Your task to perform on an android device: Go to sound settings Image 0: 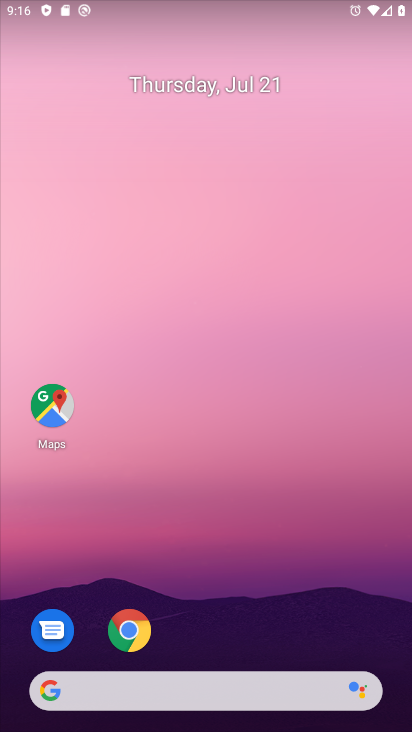
Step 0: drag from (232, 724) to (232, 592)
Your task to perform on an android device: Go to sound settings Image 1: 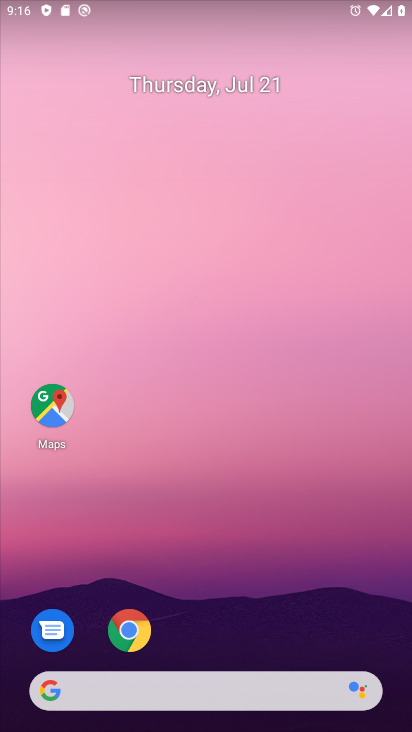
Step 1: drag from (198, 623) to (188, 139)
Your task to perform on an android device: Go to sound settings Image 2: 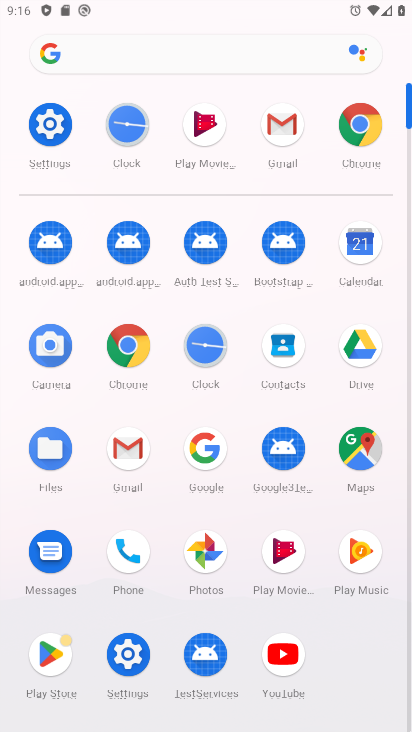
Step 2: click (59, 126)
Your task to perform on an android device: Go to sound settings Image 3: 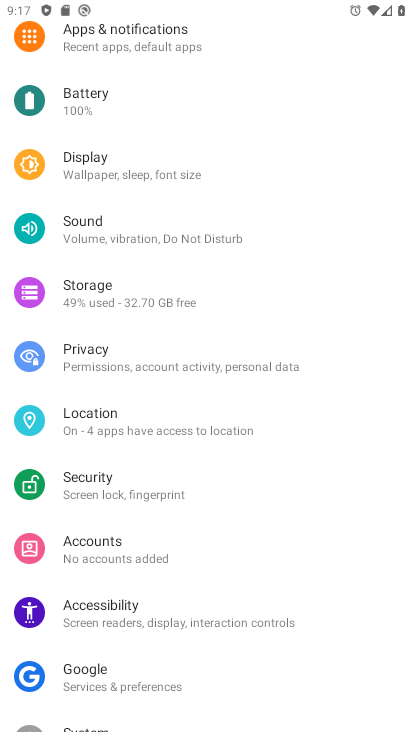
Step 3: click (105, 229)
Your task to perform on an android device: Go to sound settings Image 4: 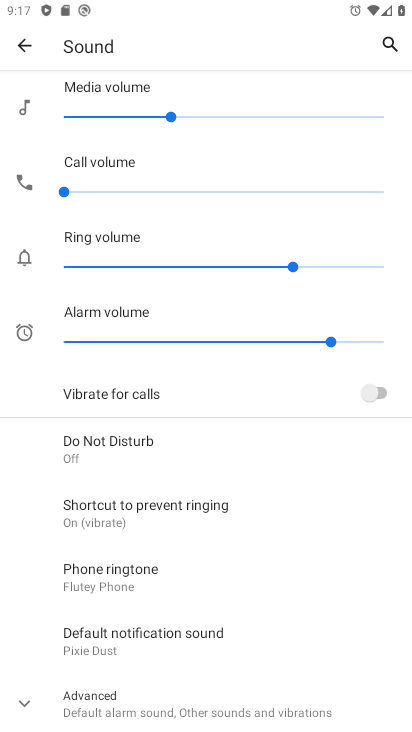
Step 4: task complete